Your task to perform on an android device: Go to eBay Image 0: 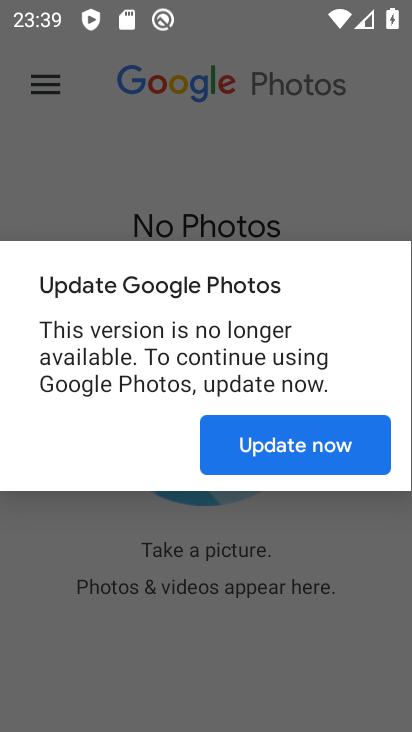
Step 0: drag from (310, 452) to (287, 712)
Your task to perform on an android device: Go to eBay Image 1: 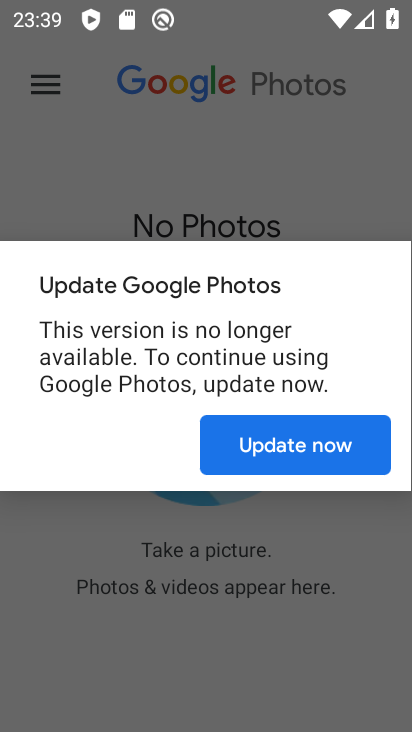
Step 1: press home button
Your task to perform on an android device: Go to eBay Image 2: 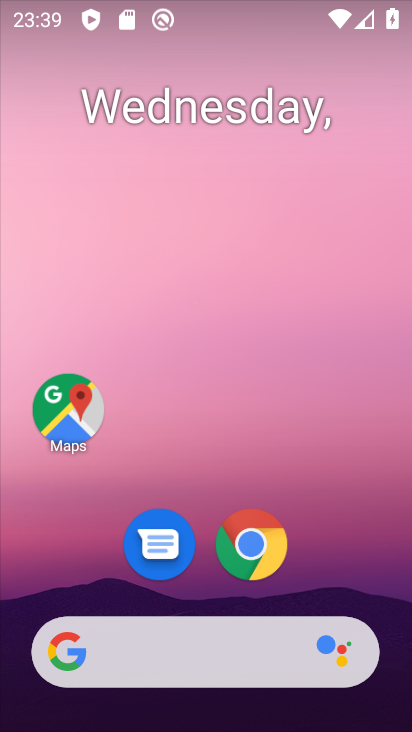
Step 2: click (252, 537)
Your task to perform on an android device: Go to eBay Image 3: 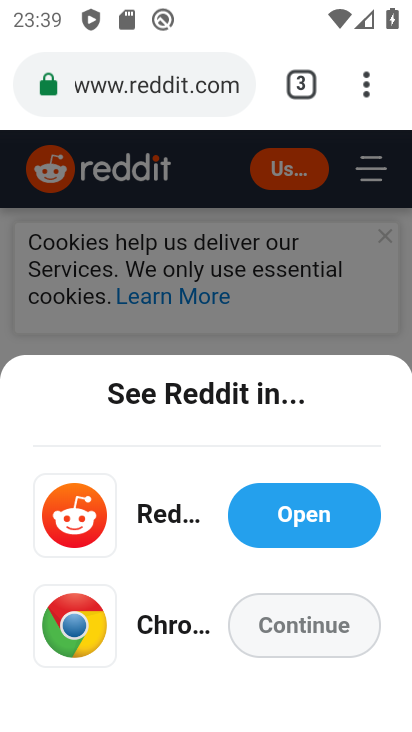
Step 3: click (129, 69)
Your task to perform on an android device: Go to eBay Image 4: 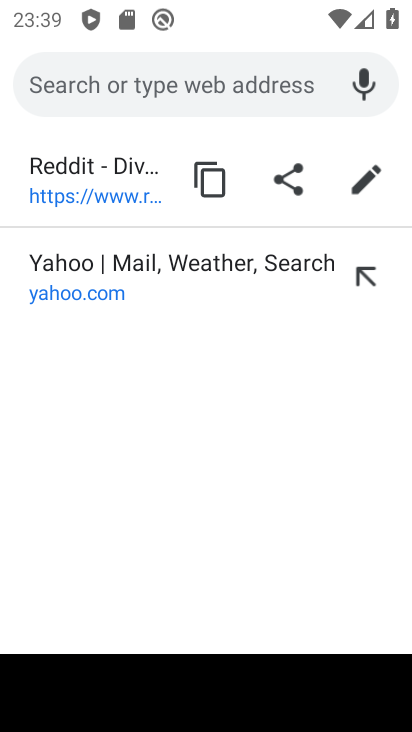
Step 4: click (135, 78)
Your task to perform on an android device: Go to eBay Image 5: 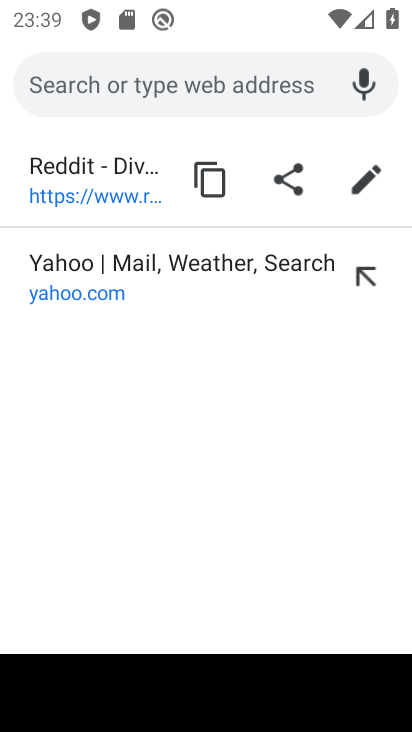
Step 5: type "eBay"
Your task to perform on an android device: Go to eBay Image 6: 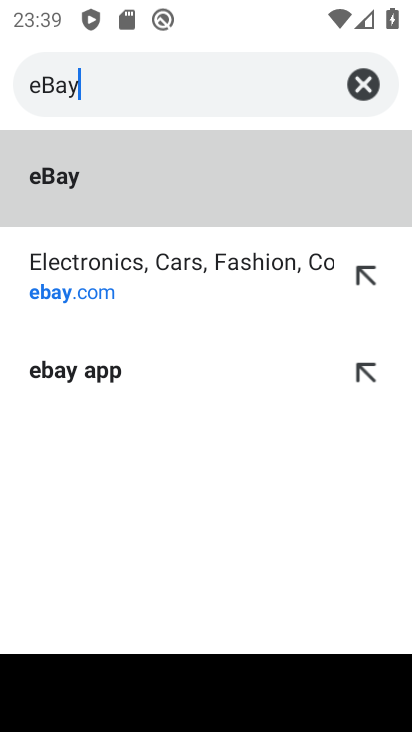
Step 6: click (99, 164)
Your task to perform on an android device: Go to eBay Image 7: 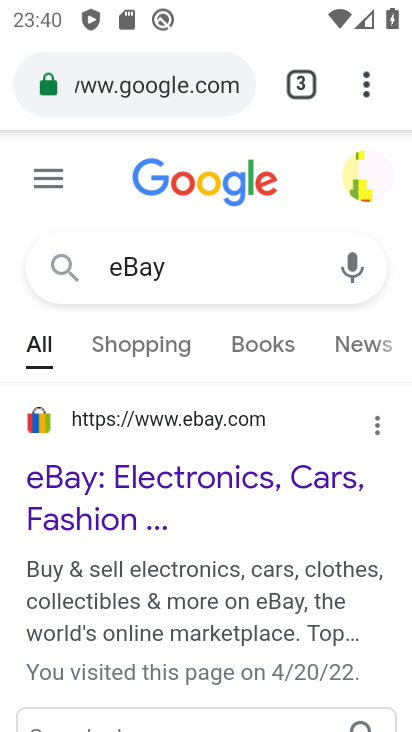
Step 7: click (174, 456)
Your task to perform on an android device: Go to eBay Image 8: 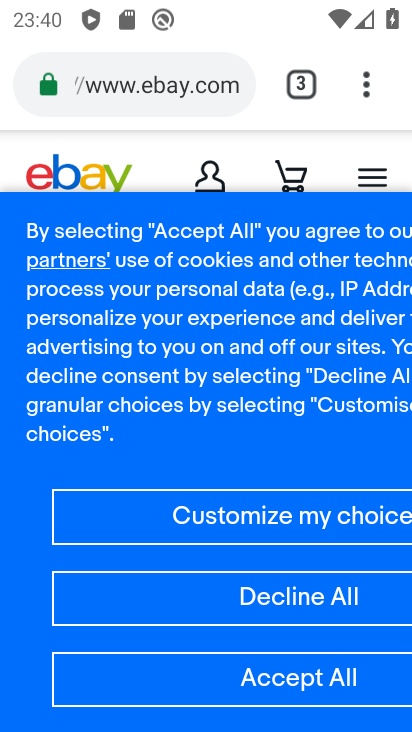
Step 8: task complete